Your task to perform on an android device: open chrome and create a bookmark for the current page Image 0: 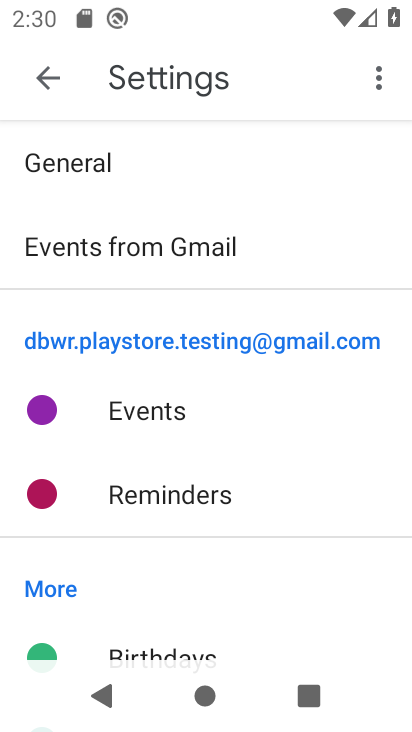
Step 0: press home button
Your task to perform on an android device: open chrome and create a bookmark for the current page Image 1: 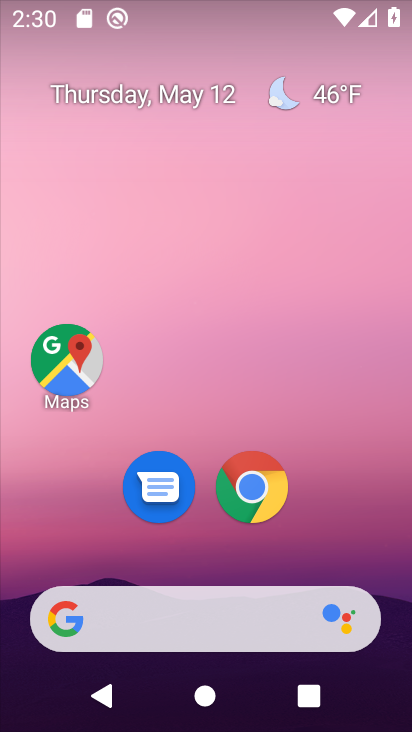
Step 1: click (274, 485)
Your task to perform on an android device: open chrome and create a bookmark for the current page Image 2: 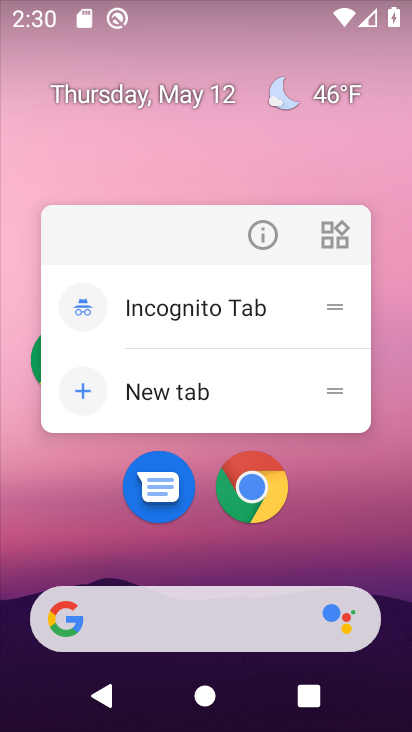
Step 2: click (268, 485)
Your task to perform on an android device: open chrome and create a bookmark for the current page Image 3: 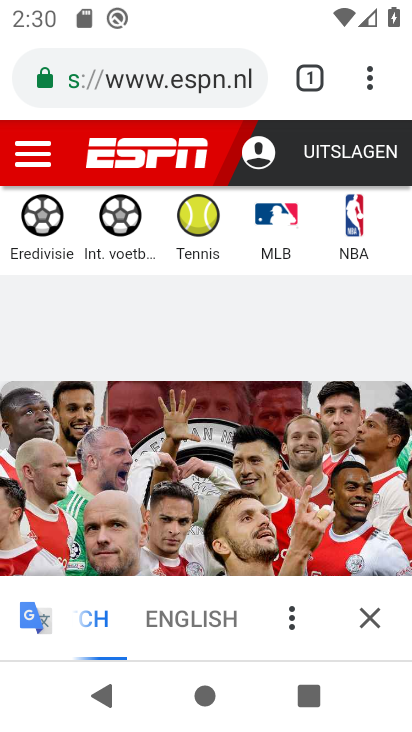
Step 3: click (353, 67)
Your task to perform on an android device: open chrome and create a bookmark for the current page Image 4: 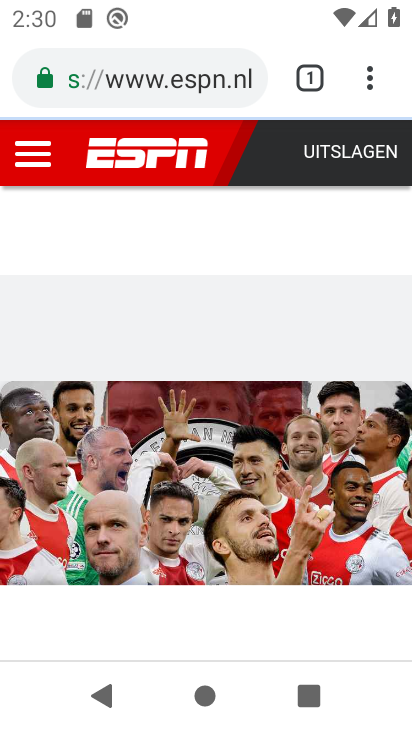
Step 4: click (369, 99)
Your task to perform on an android device: open chrome and create a bookmark for the current page Image 5: 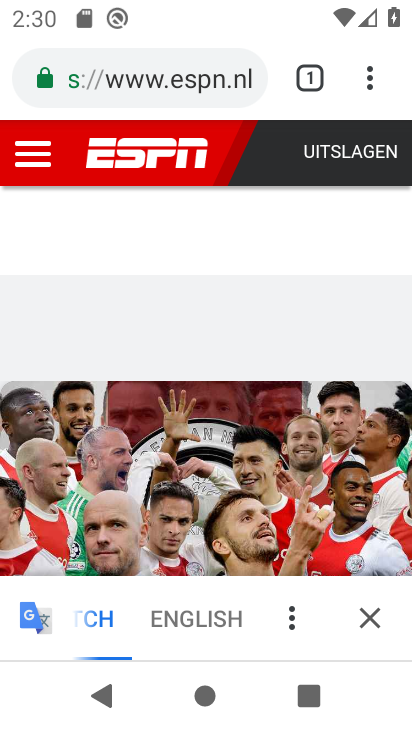
Step 5: click (353, 82)
Your task to perform on an android device: open chrome and create a bookmark for the current page Image 6: 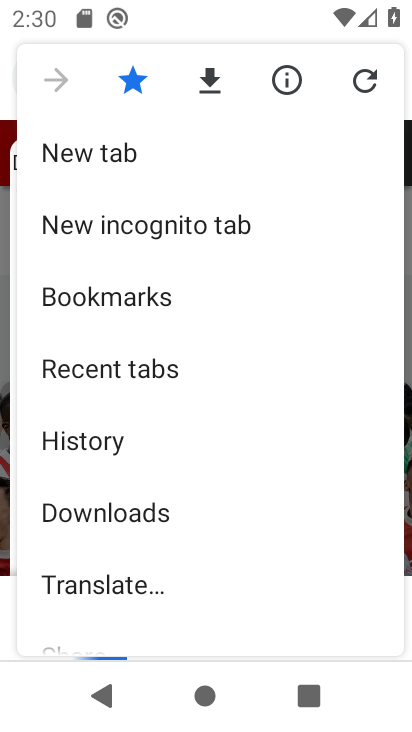
Step 6: task complete